Your task to perform on an android device: read, delete, or share a saved page in the chrome app Image 0: 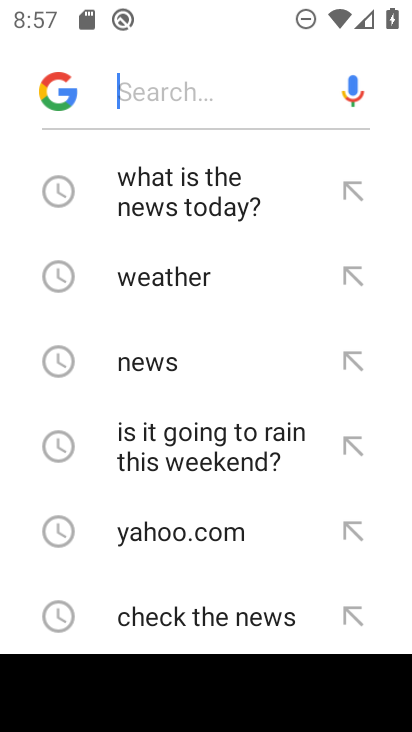
Step 0: press home button
Your task to perform on an android device: read, delete, or share a saved page in the chrome app Image 1: 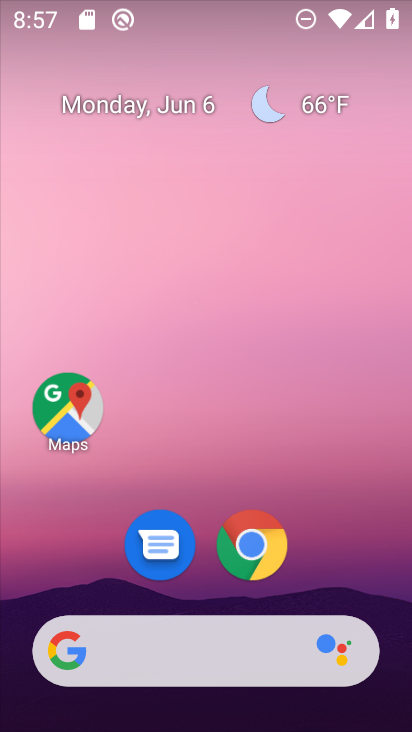
Step 1: click (261, 533)
Your task to perform on an android device: read, delete, or share a saved page in the chrome app Image 2: 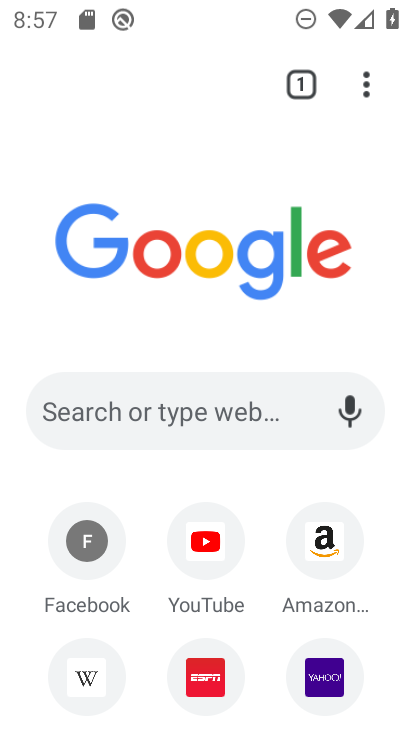
Step 2: click (366, 101)
Your task to perform on an android device: read, delete, or share a saved page in the chrome app Image 3: 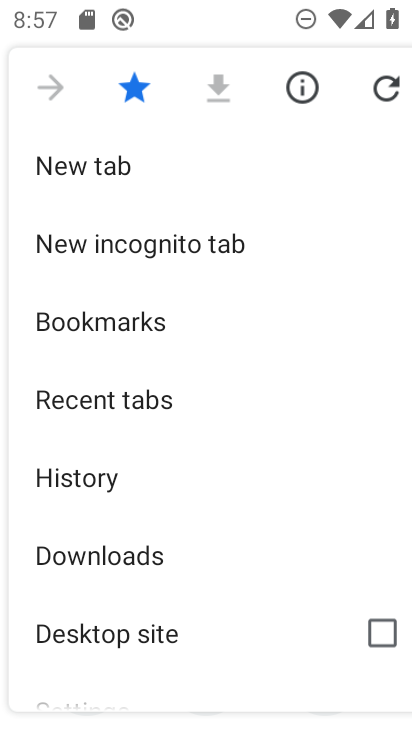
Step 3: drag from (99, 593) to (129, 206)
Your task to perform on an android device: read, delete, or share a saved page in the chrome app Image 4: 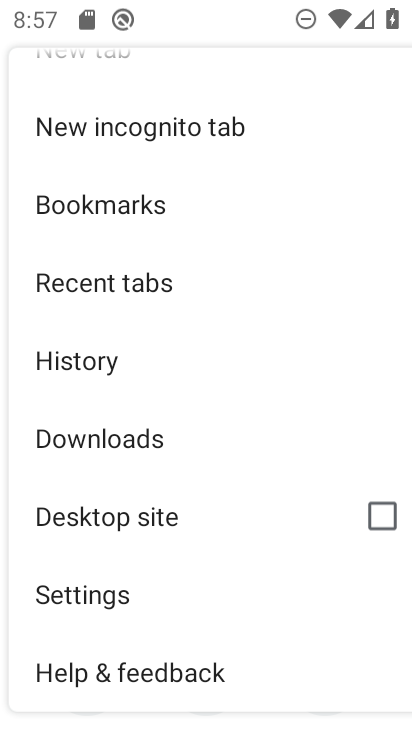
Step 4: click (89, 454)
Your task to perform on an android device: read, delete, or share a saved page in the chrome app Image 5: 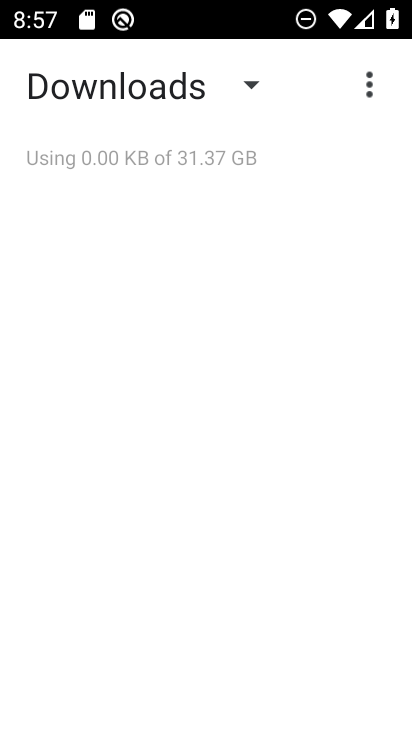
Step 5: task complete